Your task to perform on an android device: change notifications settings Image 0: 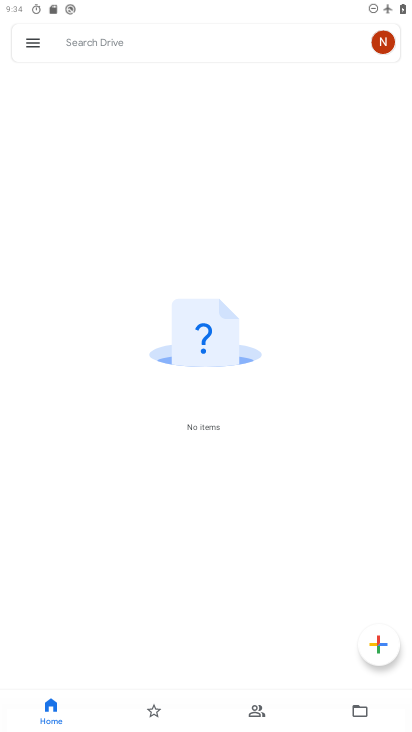
Step 0: press home button
Your task to perform on an android device: change notifications settings Image 1: 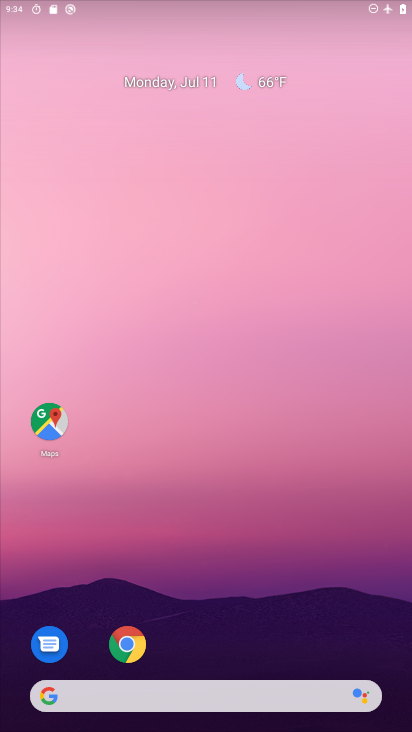
Step 1: drag from (281, 581) to (224, 144)
Your task to perform on an android device: change notifications settings Image 2: 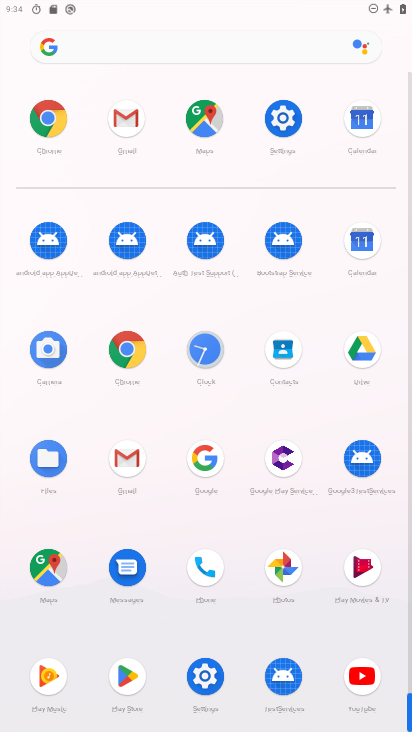
Step 2: click (274, 125)
Your task to perform on an android device: change notifications settings Image 3: 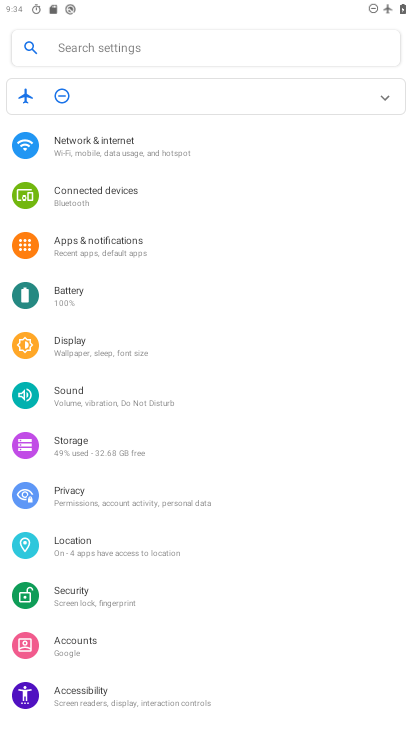
Step 3: click (88, 243)
Your task to perform on an android device: change notifications settings Image 4: 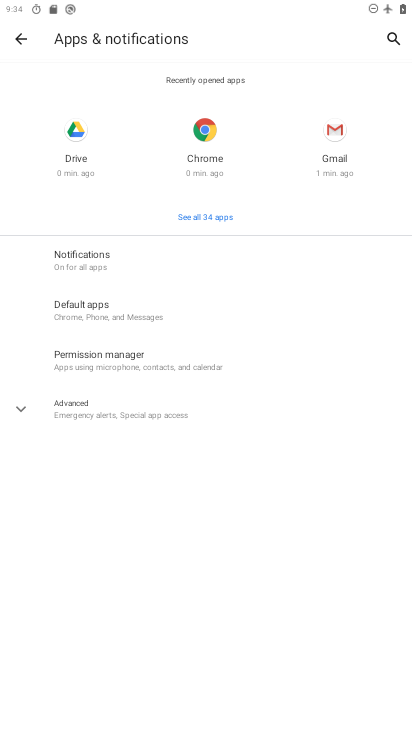
Step 4: click (106, 263)
Your task to perform on an android device: change notifications settings Image 5: 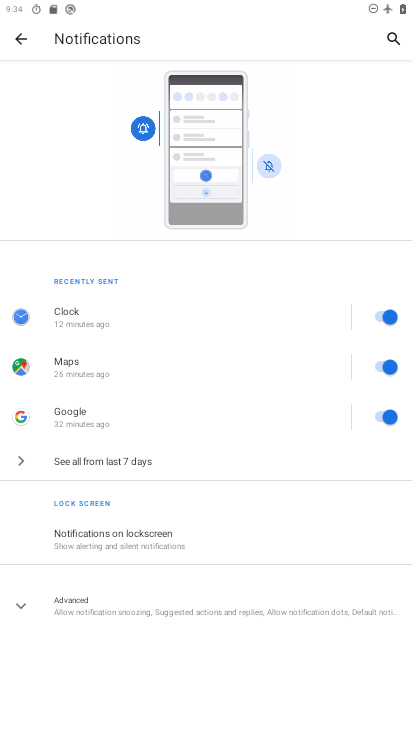
Step 5: click (126, 615)
Your task to perform on an android device: change notifications settings Image 6: 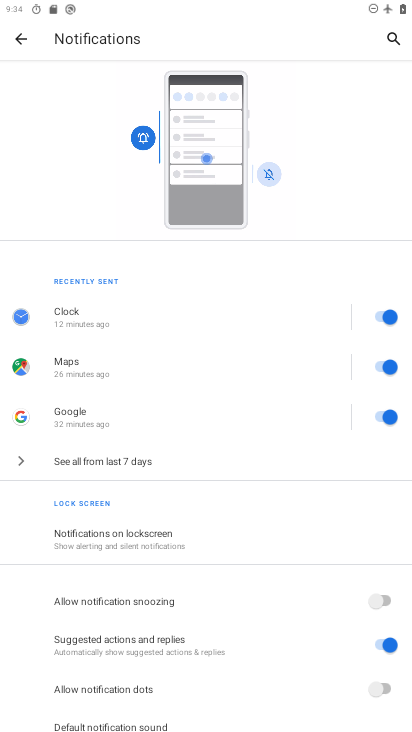
Step 6: click (381, 602)
Your task to perform on an android device: change notifications settings Image 7: 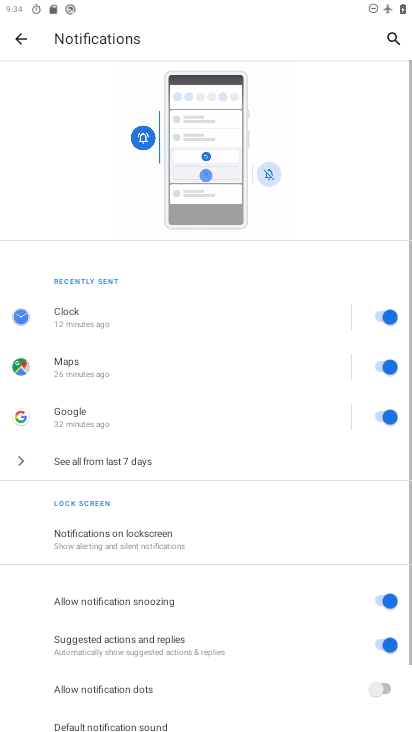
Step 7: task complete